Your task to perform on an android device: turn off picture-in-picture Image 0: 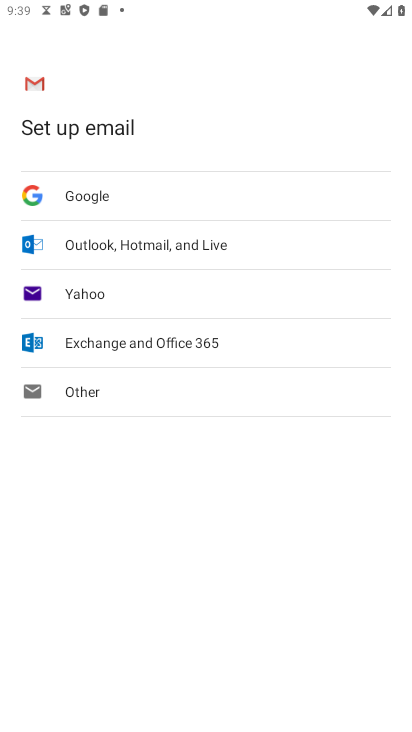
Step 0: press home button
Your task to perform on an android device: turn off picture-in-picture Image 1: 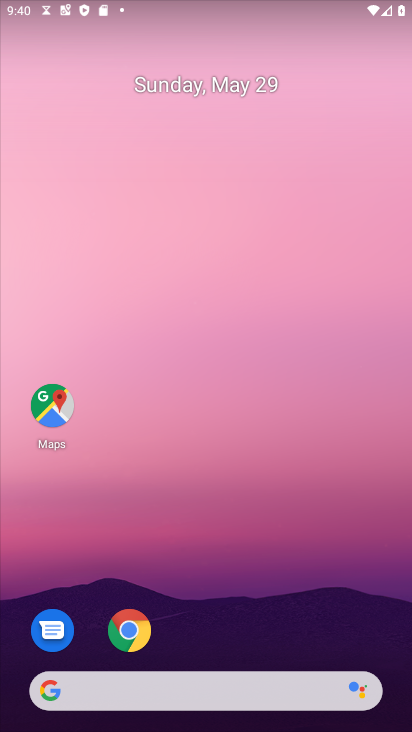
Step 1: drag from (228, 614) to (264, 69)
Your task to perform on an android device: turn off picture-in-picture Image 2: 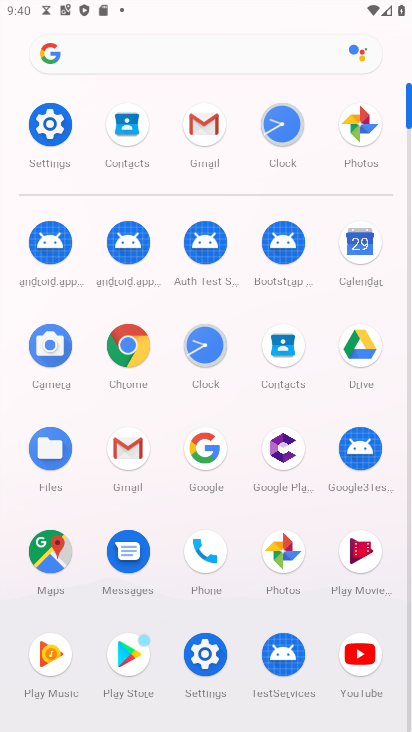
Step 2: click (53, 114)
Your task to perform on an android device: turn off picture-in-picture Image 3: 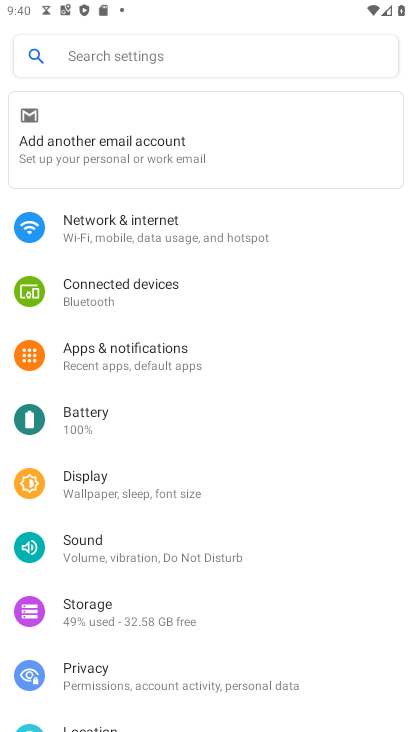
Step 3: click (93, 350)
Your task to perform on an android device: turn off picture-in-picture Image 4: 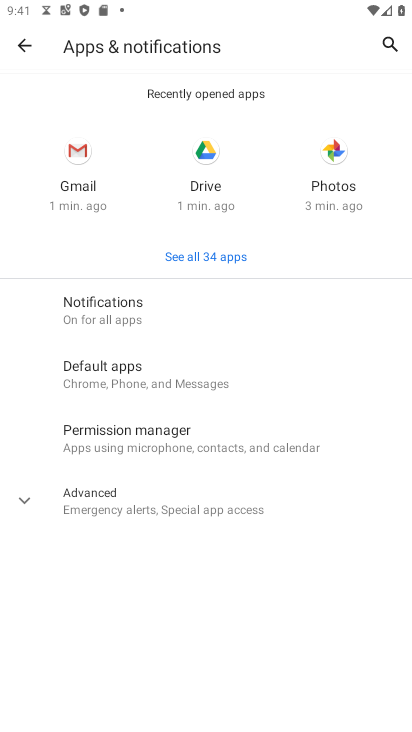
Step 4: click (141, 503)
Your task to perform on an android device: turn off picture-in-picture Image 5: 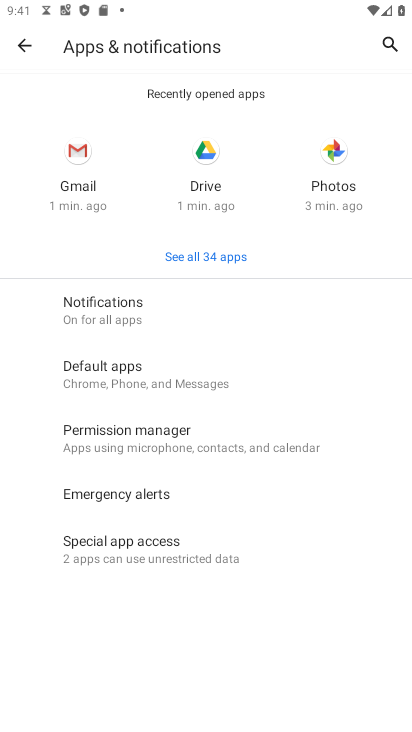
Step 5: click (133, 541)
Your task to perform on an android device: turn off picture-in-picture Image 6: 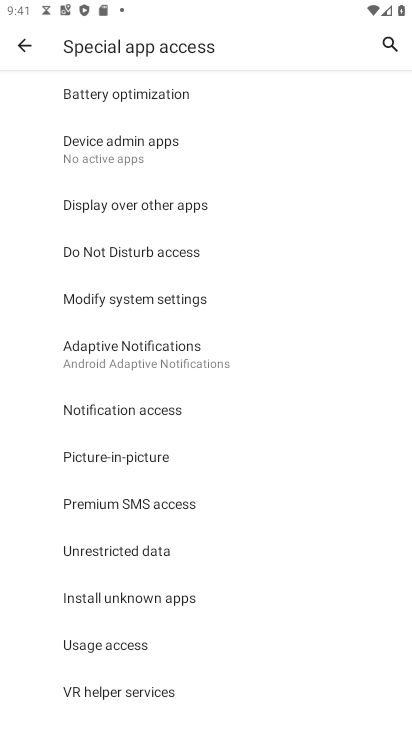
Step 6: click (133, 452)
Your task to perform on an android device: turn off picture-in-picture Image 7: 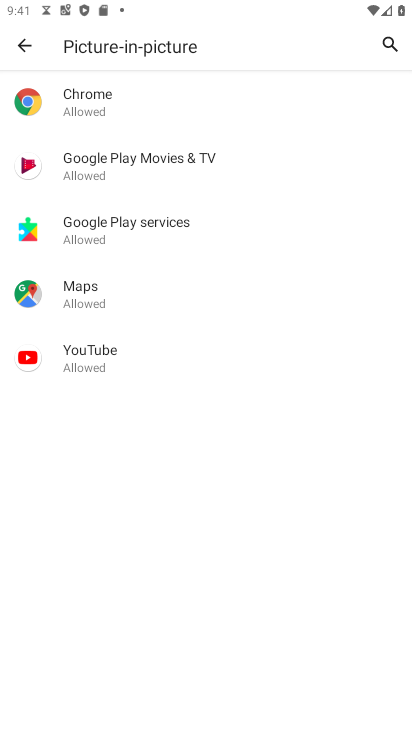
Step 7: click (81, 105)
Your task to perform on an android device: turn off picture-in-picture Image 8: 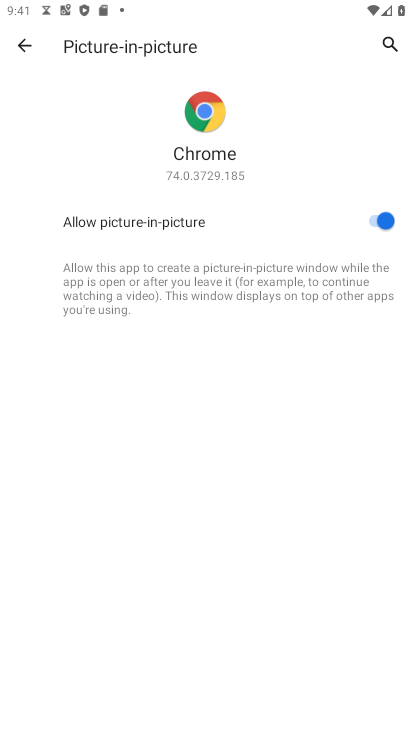
Step 8: click (381, 223)
Your task to perform on an android device: turn off picture-in-picture Image 9: 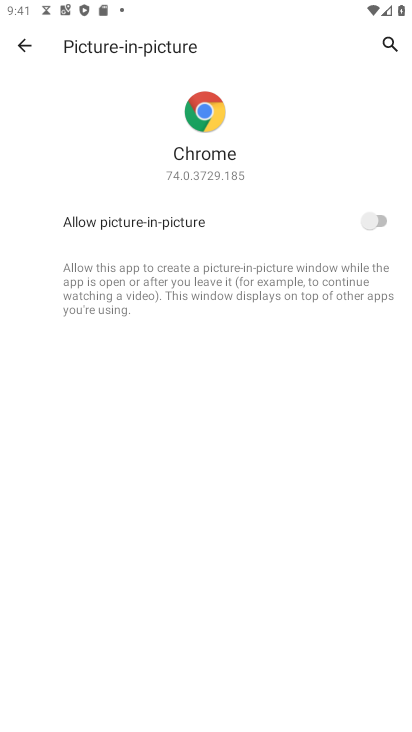
Step 9: click (16, 38)
Your task to perform on an android device: turn off picture-in-picture Image 10: 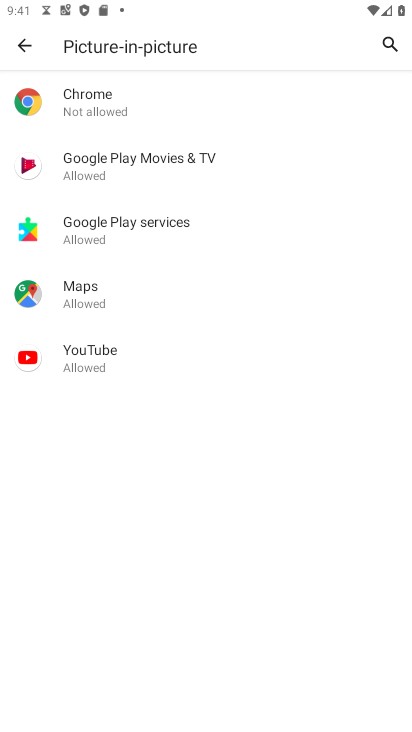
Step 10: click (138, 162)
Your task to perform on an android device: turn off picture-in-picture Image 11: 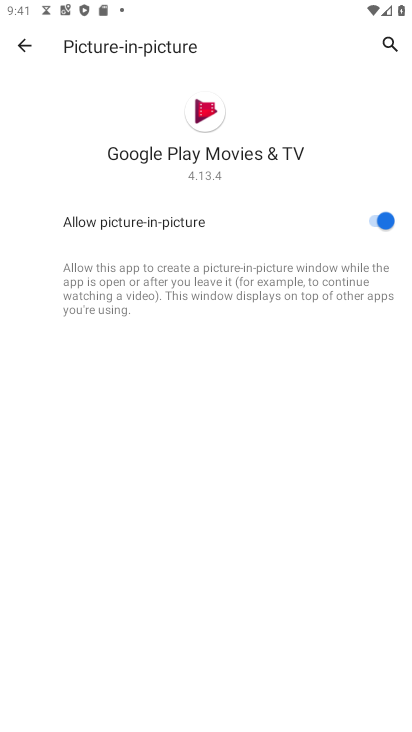
Step 11: click (381, 218)
Your task to perform on an android device: turn off picture-in-picture Image 12: 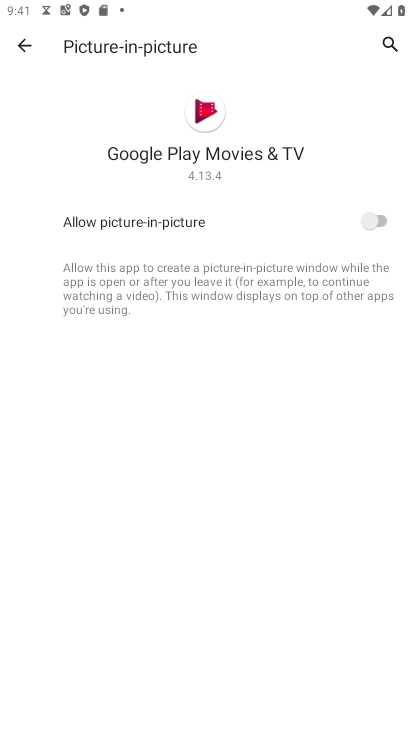
Step 12: click (26, 42)
Your task to perform on an android device: turn off picture-in-picture Image 13: 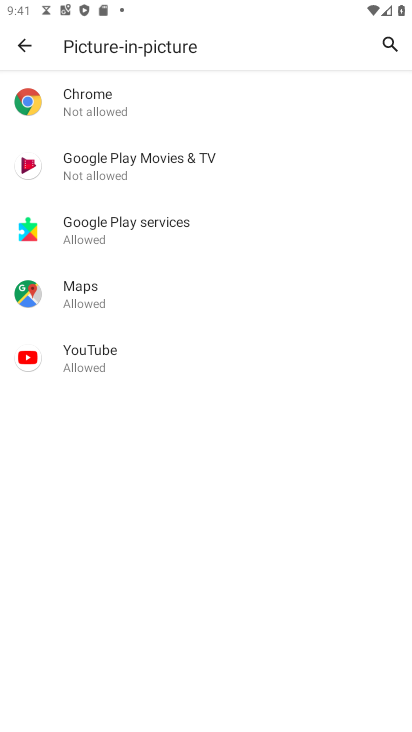
Step 13: click (121, 228)
Your task to perform on an android device: turn off picture-in-picture Image 14: 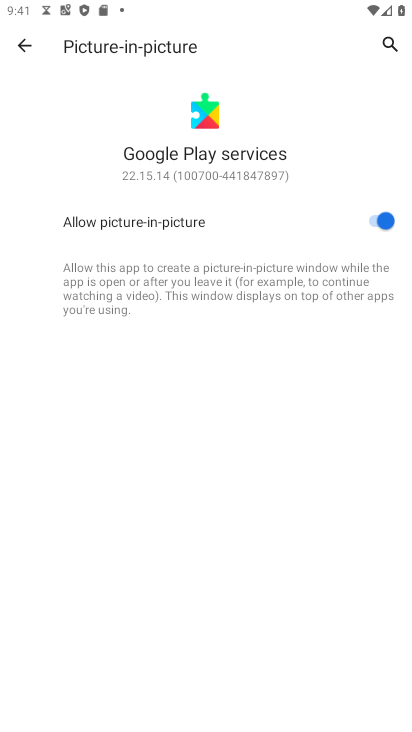
Step 14: click (373, 214)
Your task to perform on an android device: turn off picture-in-picture Image 15: 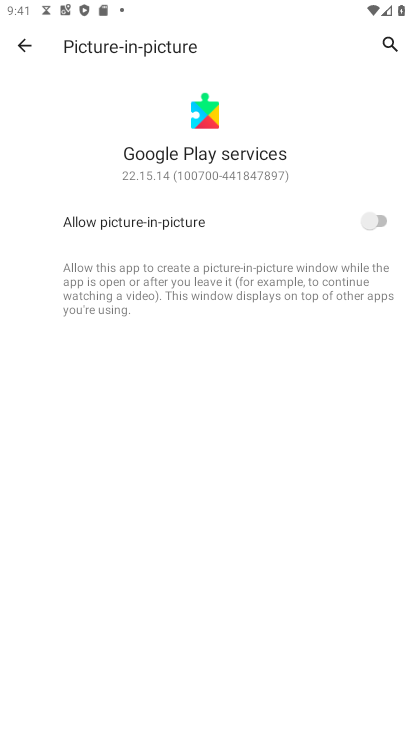
Step 15: click (28, 40)
Your task to perform on an android device: turn off picture-in-picture Image 16: 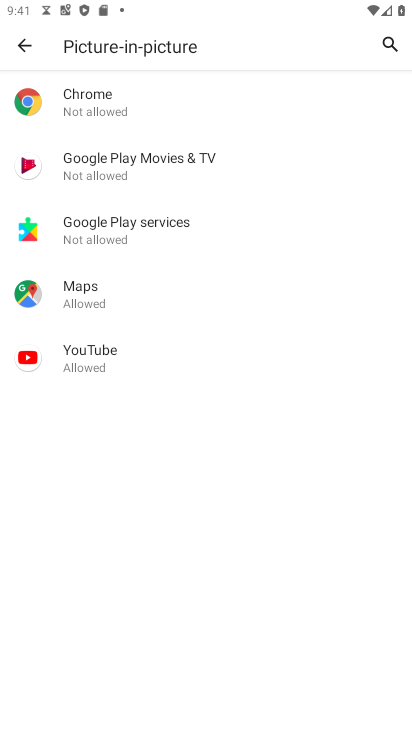
Step 16: click (80, 296)
Your task to perform on an android device: turn off picture-in-picture Image 17: 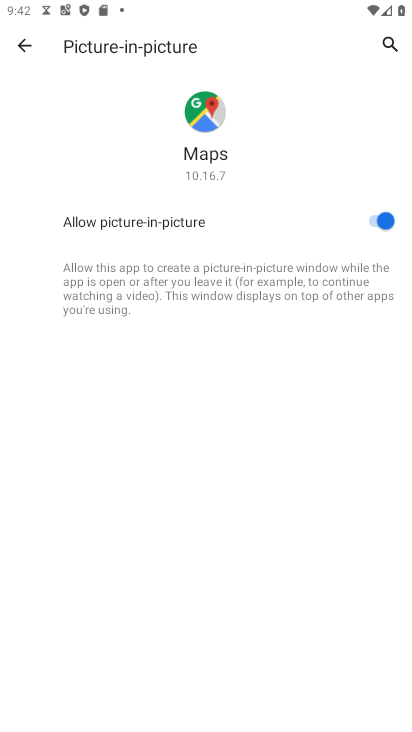
Step 17: click (376, 215)
Your task to perform on an android device: turn off picture-in-picture Image 18: 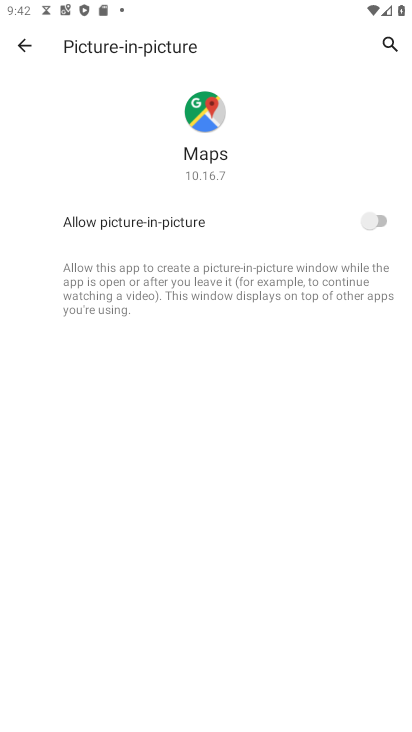
Step 18: click (24, 42)
Your task to perform on an android device: turn off picture-in-picture Image 19: 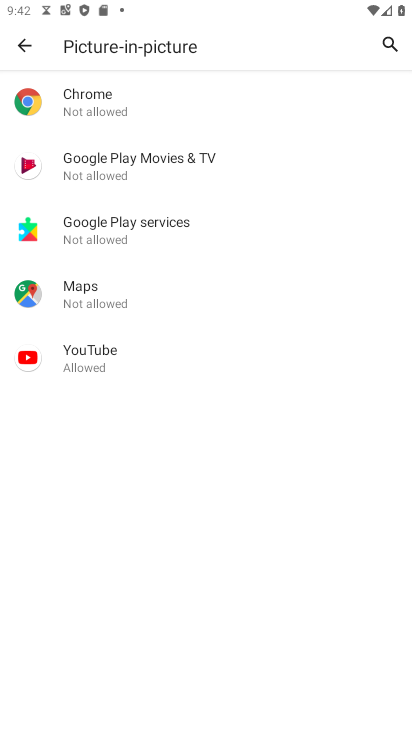
Step 19: click (96, 350)
Your task to perform on an android device: turn off picture-in-picture Image 20: 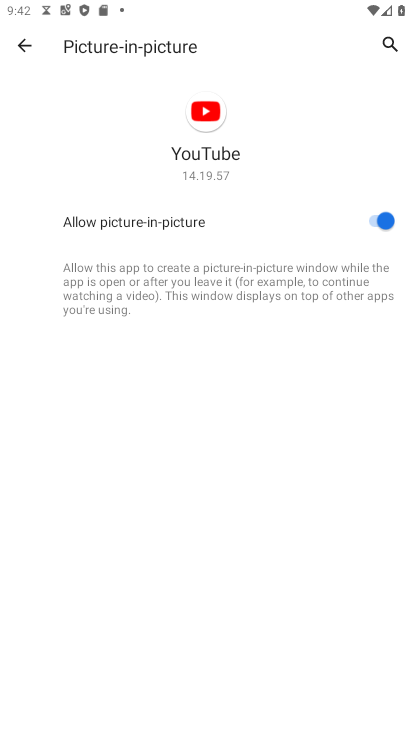
Step 20: click (375, 220)
Your task to perform on an android device: turn off picture-in-picture Image 21: 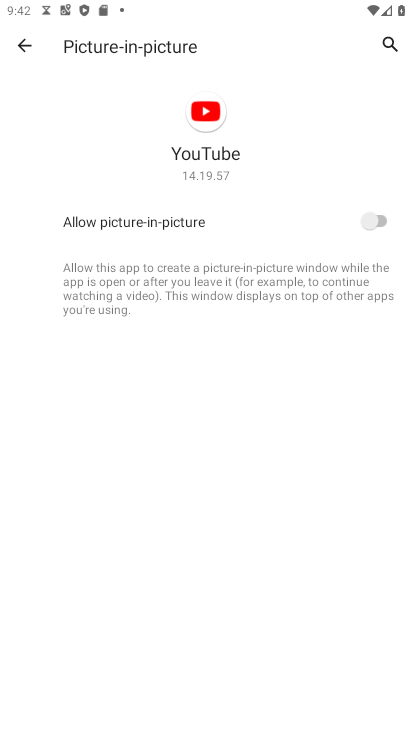
Step 21: task complete